Your task to perform on an android device: toggle pop-ups in chrome Image 0: 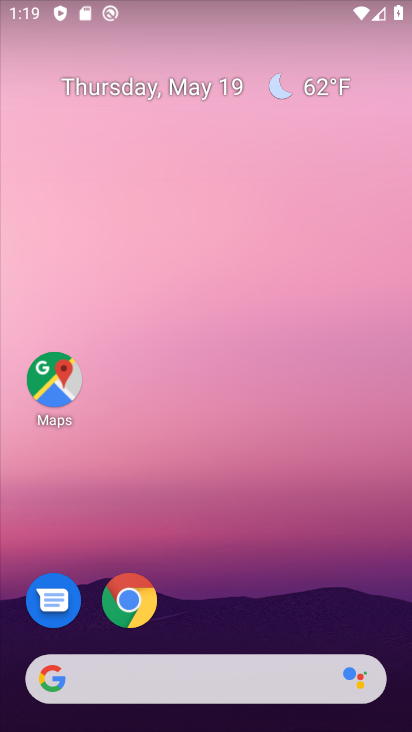
Step 0: click (138, 594)
Your task to perform on an android device: toggle pop-ups in chrome Image 1: 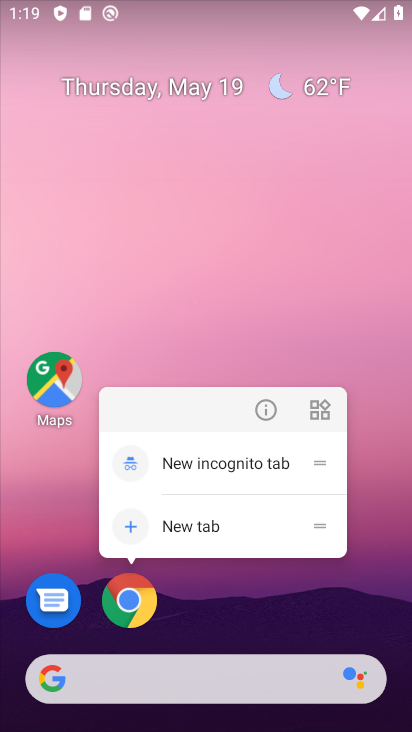
Step 1: click (116, 579)
Your task to perform on an android device: toggle pop-ups in chrome Image 2: 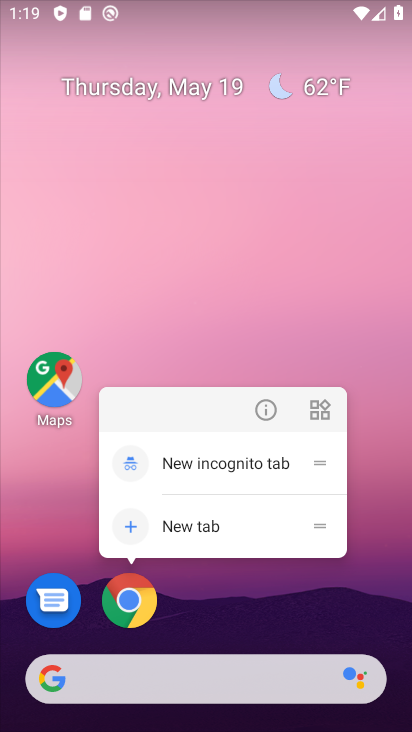
Step 2: click (146, 614)
Your task to perform on an android device: toggle pop-ups in chrome Image 3: 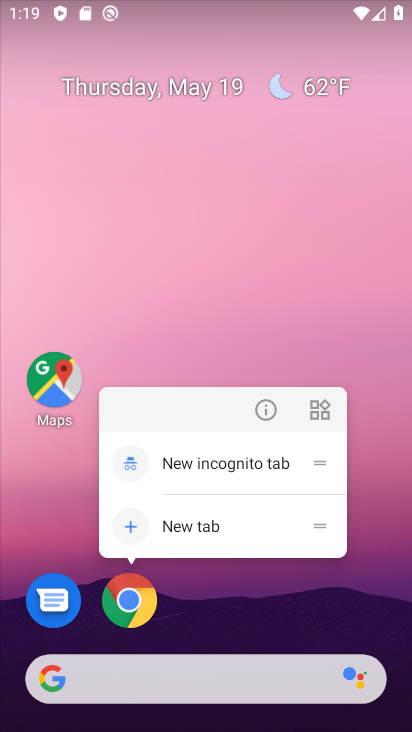
Step 3: click (141, 605)
Your task to perform on an android device: toggle pop-ups in chrome Image 4: 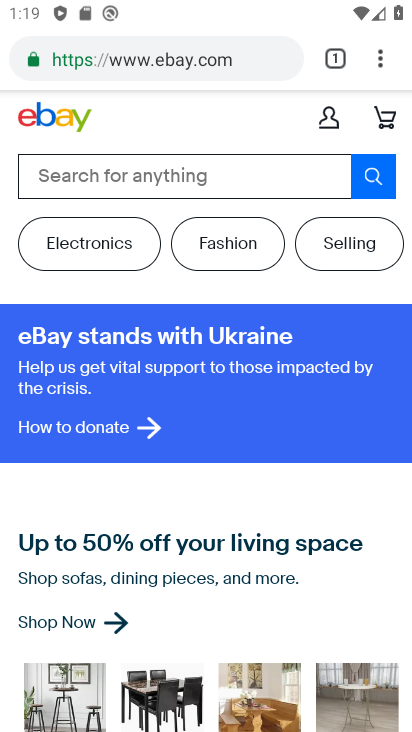
Step 4: click (386, 63)
Your task to perform on an android device: toggle pop-ups in chrome Image 5: 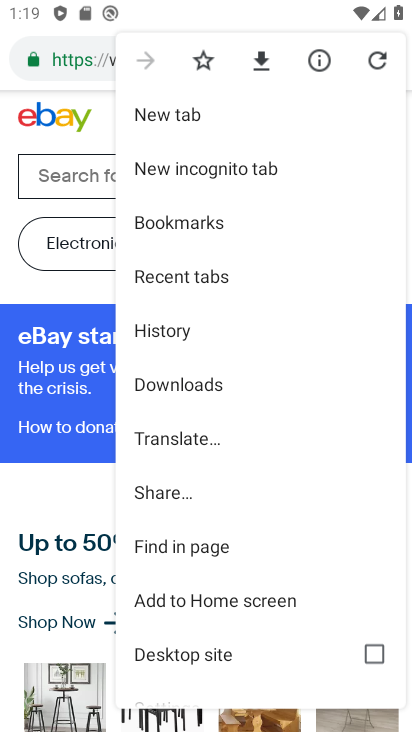
Step 5: drag from (253, 622) to (238, 296)
Your task to perform on an android device: toggle pop-ups in chrome Image 6: 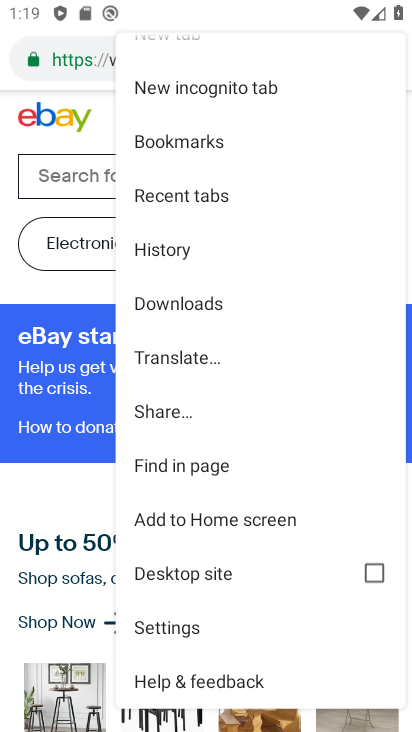
Step 6: click (194, 632)
Your task to perform on an android device: toggle pop-ups in chrome Image 7: 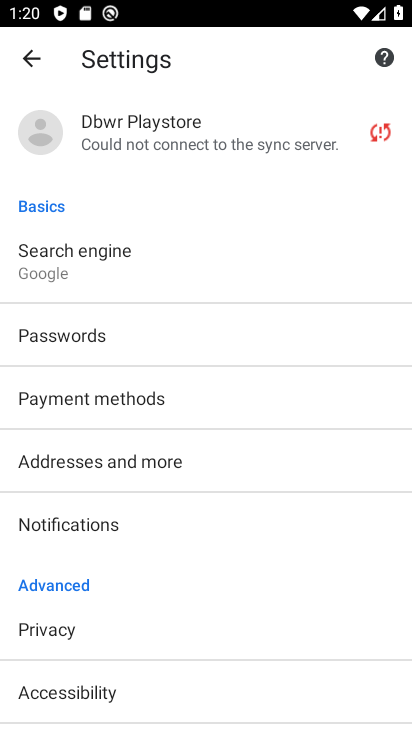
Step 7: drag from (142, 641) to (125, 238)
Your task to perform on an android device: toggle pop-ups in chrome Image 8: 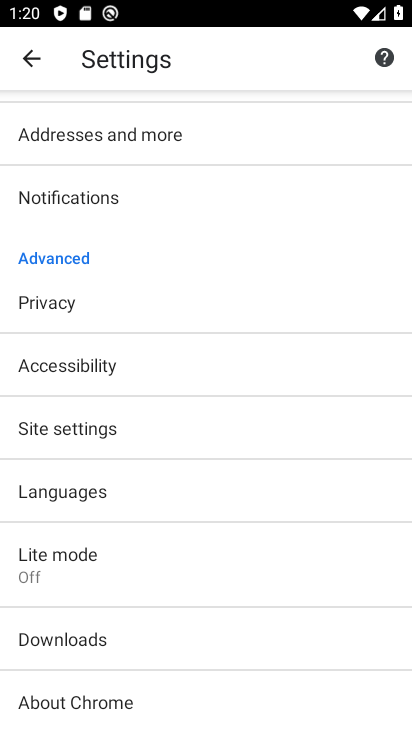
Step 8: click (90, 441)
Your task to perform on an android device: toggle pop-ups in chrome Image 9: 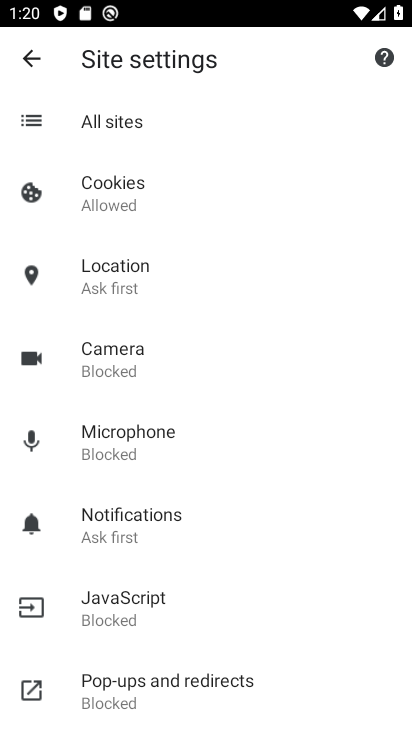
Step 9: click (146, 692)
Your task to perform on an android device: toggle pop-ups in chrome Image 10: 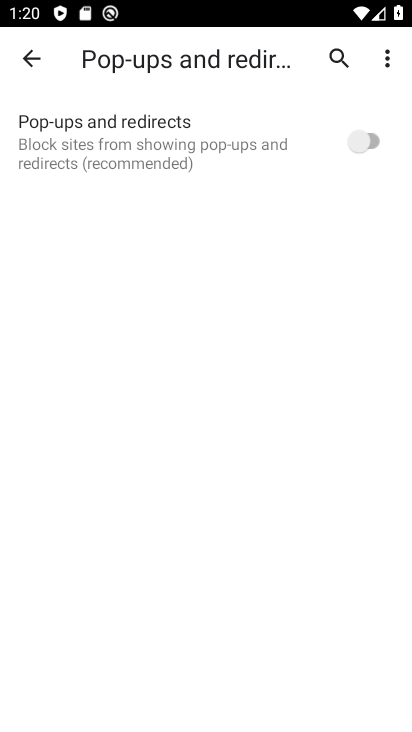
Step 10: click (365, 152)
Your task to perform on an android device: toggle pop-ups in chrome Image 11: 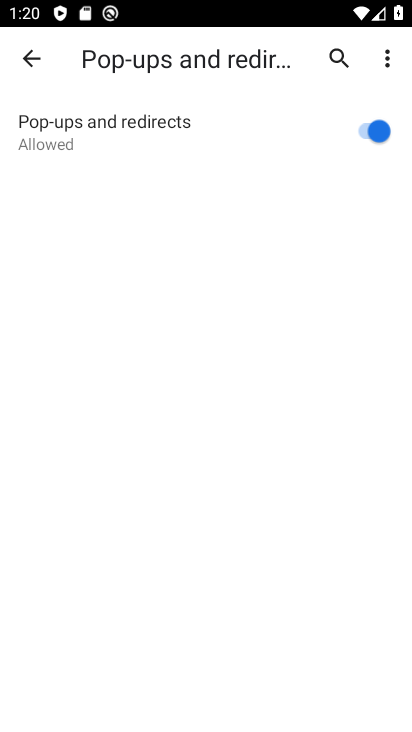
Step 11: task complete